Your task to perform on an android device: Open Google Chrome and open the bookmarks view Image 0: 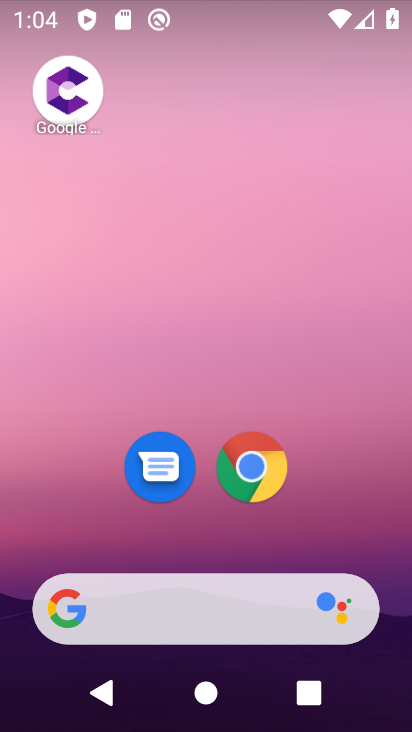
Step 0: drag from (374, 495) to (381, 116)
Your task to perform on an android device: Open Google Chrome and open the bookmarks view Image 1: 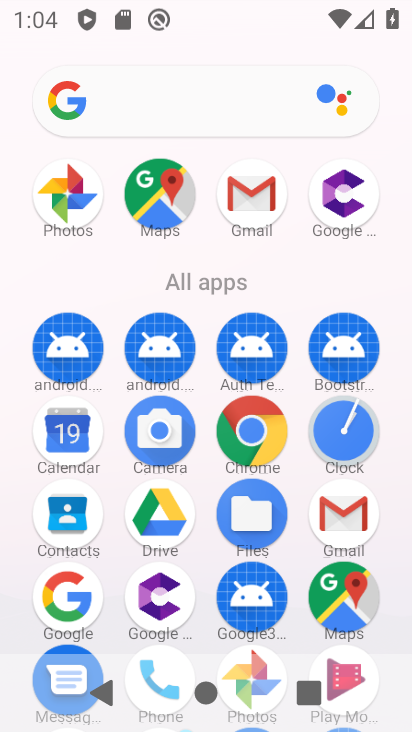
Step 1: click (260, 429)
Your task to perform on an android device: Open Google Chrome and open the bookmarks view Image 2: 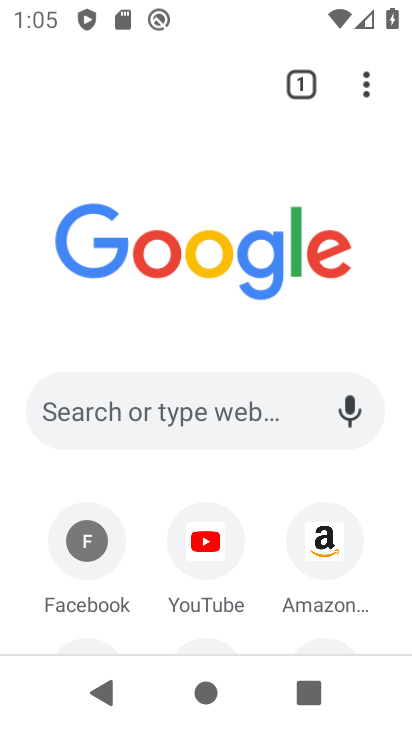
Step 2: click (365, 92)
Your task to perform on an android device: Open Google Chrome and open the bookmarks view Image 3: 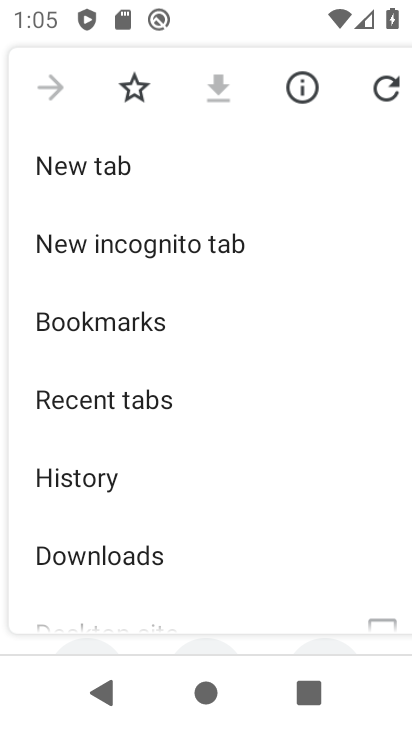
Step 3: click (126, 322)
Your task to perform on an android device: Open Google Chrome and open the bookmarks view Image 4: 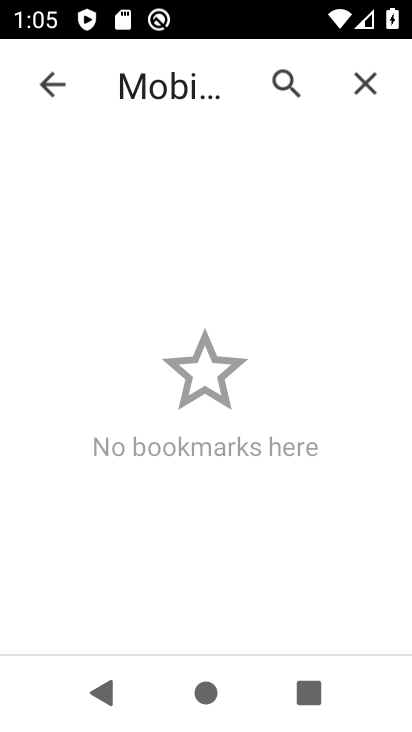
Step 4: task complete